Your task to perform on an android device: Open Youtube and go to the subscriptions tab Image 0: 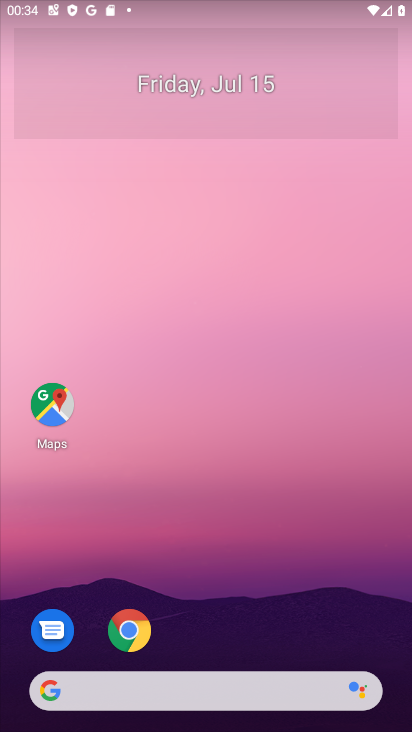
Step 0: drag from (274, 619) to (273, 139)
Your task to perform on an android device: Open Youtube and go to the subscriptions tab Image 1: 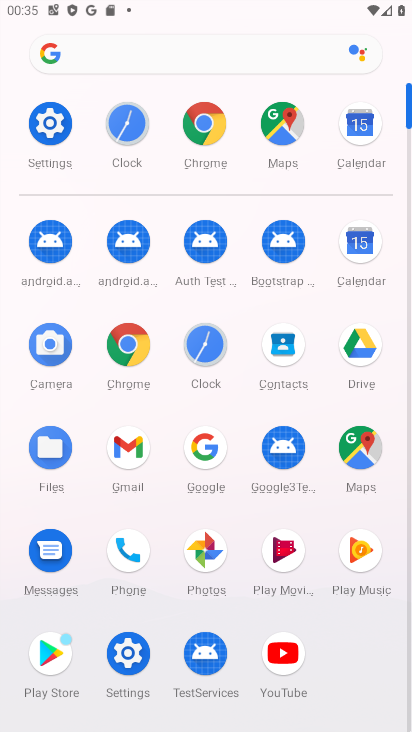
Step 1: click (305, 668)
Your task to perform on an android device: Open Youtube and go to the subscriptions tab Image 2: 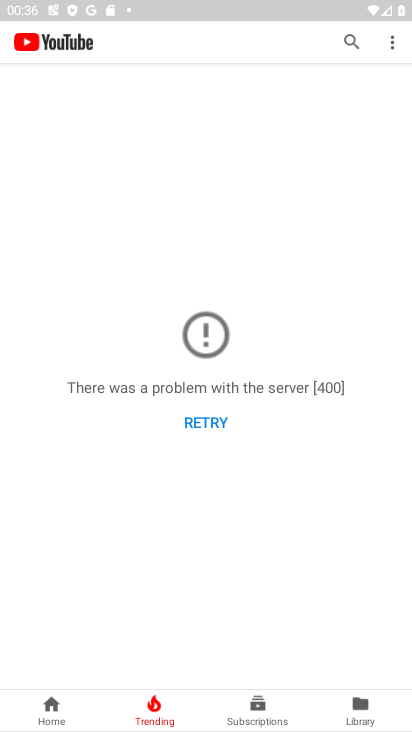
Step 2: click (259, 719)
Your task to perform on an android device: Open Youtube and go to the subscriptions tab Image 3: 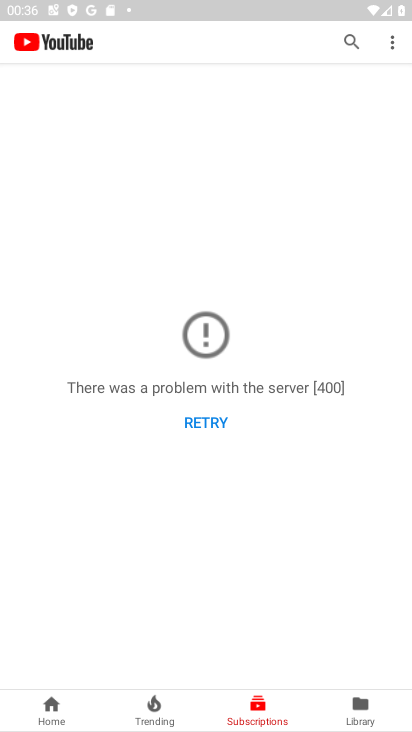
Step 3: task complete